Your task to perform on an android device: Open calendar and show me the fourth week of next month Image 0: 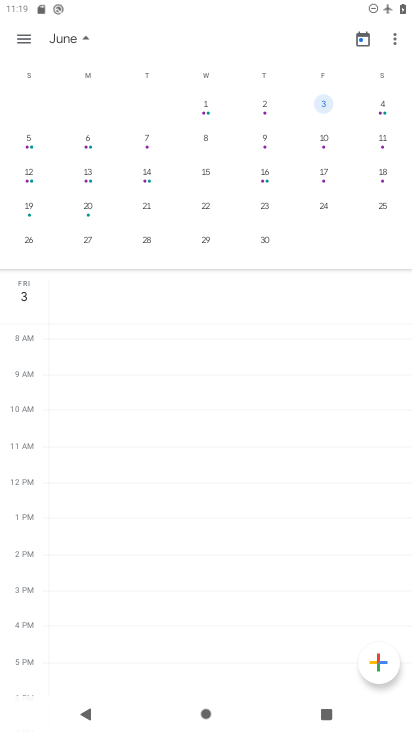
Step 0: press home button
Your task to perform on an android device: Open calendar and show me the fourth week of next month Image 1: 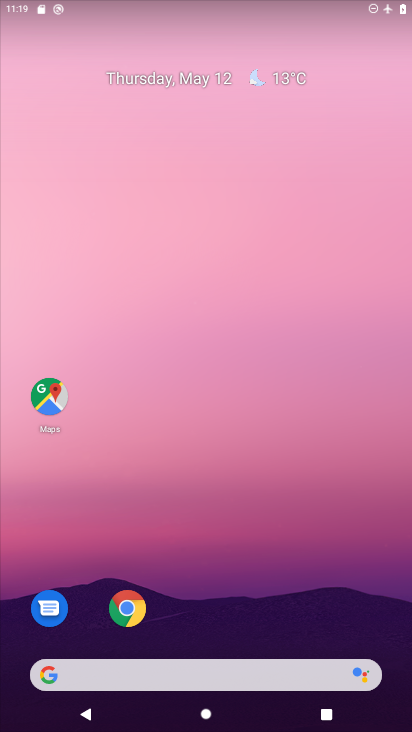
Step 1: drag from (226, 568) to (270, 45)
Your task to perform on an android device: Open calendar and show me the fourth week of next month Image 2: 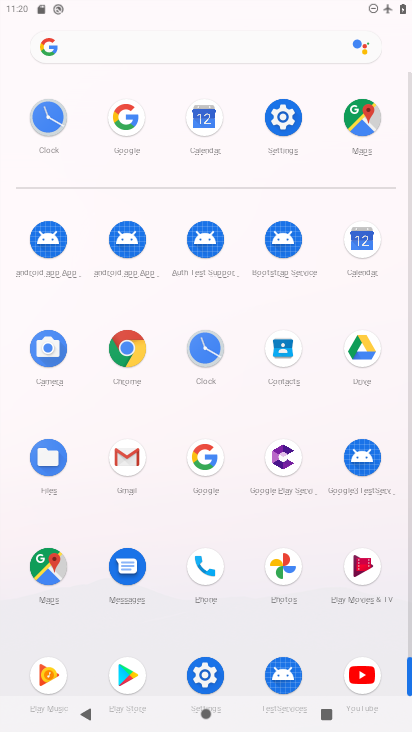
Step 2: click (357, 250)
Your task to perform on an android device: Open calendar and show me the fourth week of next month Image 3: 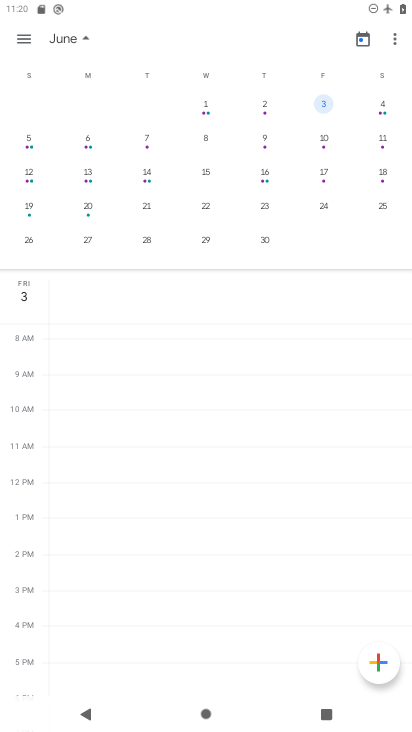
Step 3: click (202, 204)
Your task to perform on an android device: Open calendar and show me the fourth week of next month Image 4: 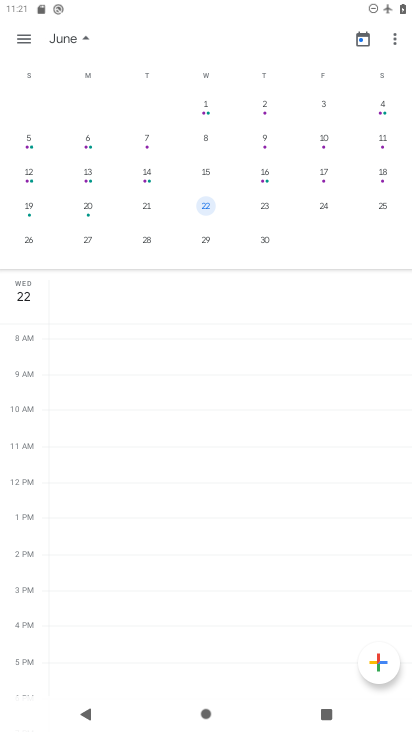
Step 4: task complete